Your task to perform on an android device: What's the weather like in Beijing? Image 0: 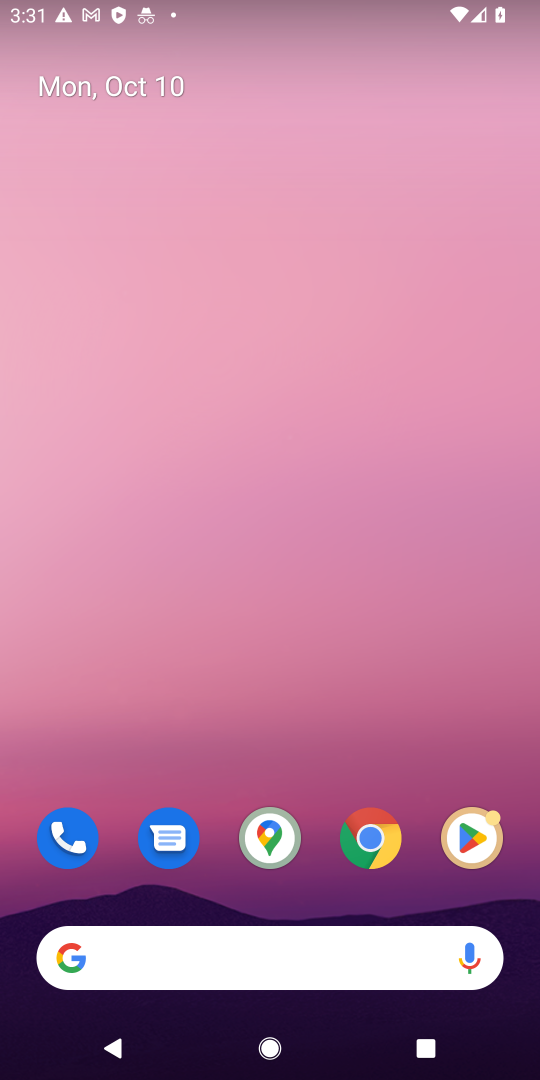
Step 0: click (364, 844)
Your task to perform on an android device: What's the weather like in Beijing? Image 1: 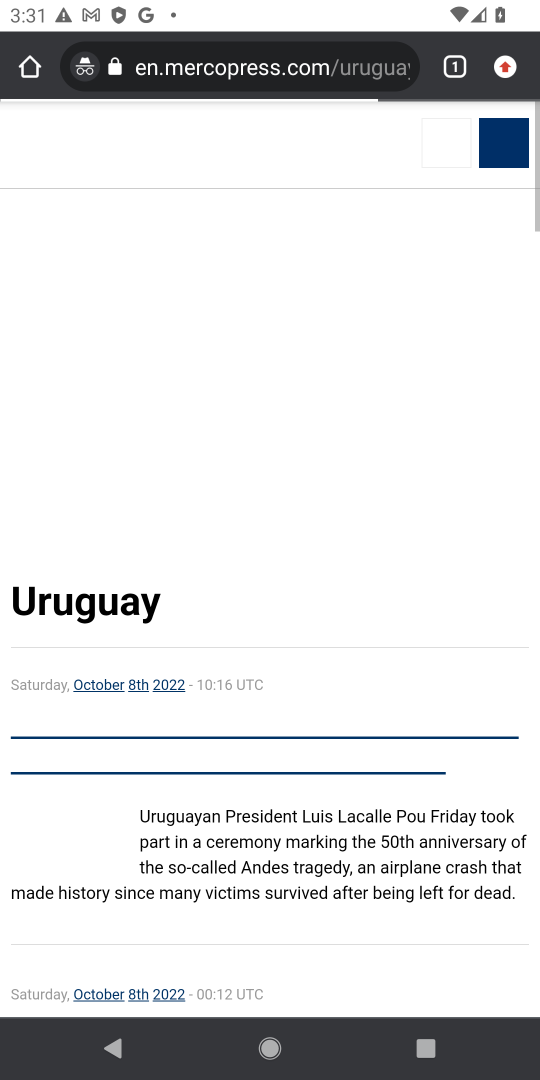
Step 1: click (228, 67)
Your task to perform on an android device: What's the weather like in Beijing? Image 2: 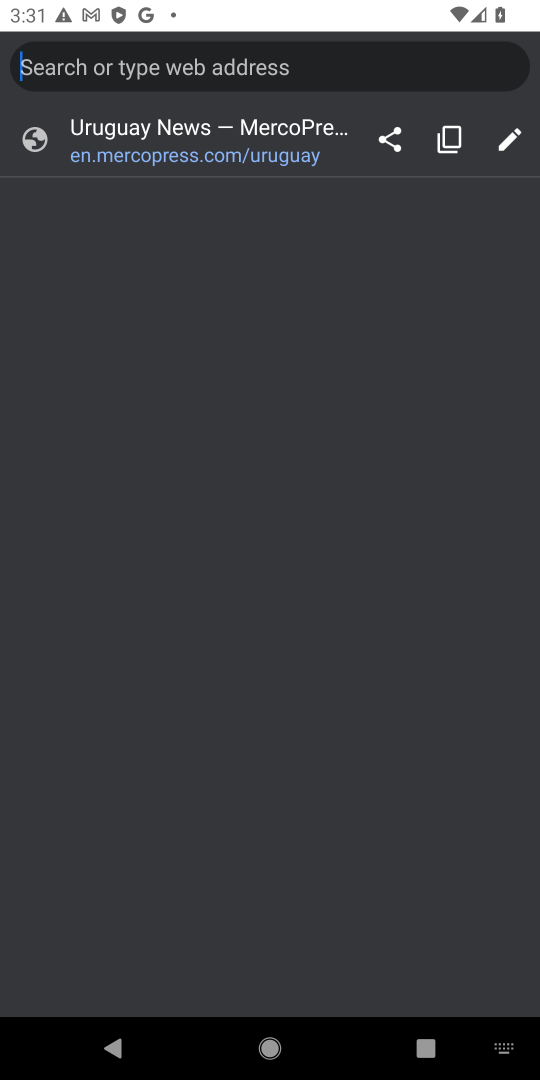
Step 2: type "What's the news in Uruguay?"
Your task to perform on an android device: What's the weather like in Beijing? Image 3: 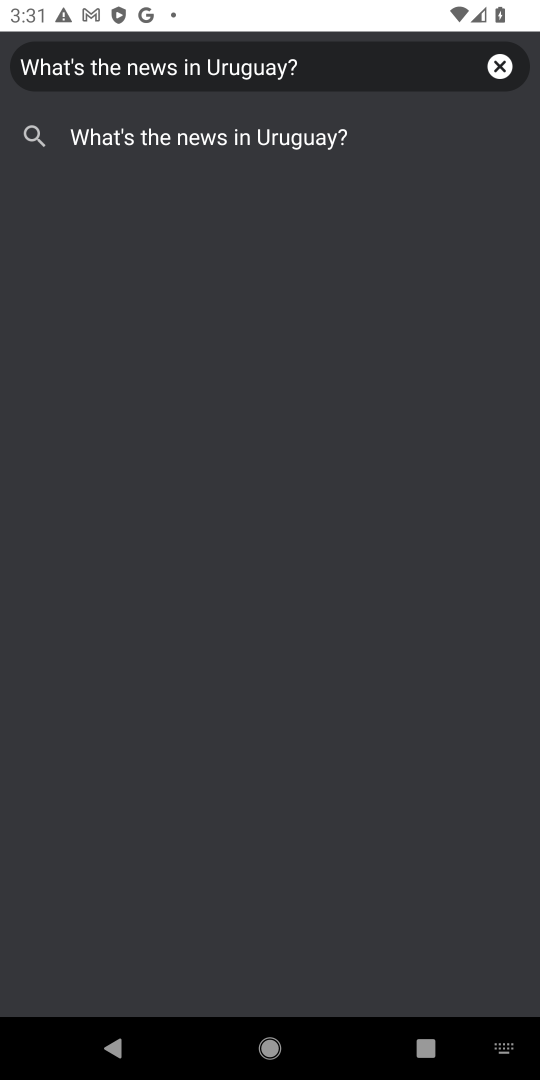
Step 3: click (309, 133)
Your task to perform on an android device: What's the weather like in Beijing? Image 4: 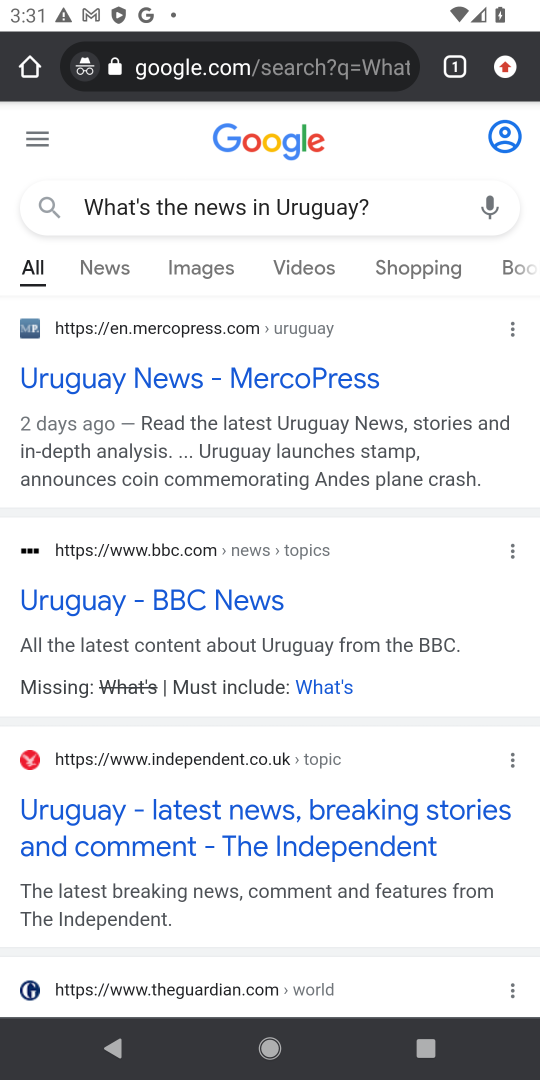
Step 4: click (90, 398)
Your task to perform on an android device: What's the weather like in Beijing? Image 5: 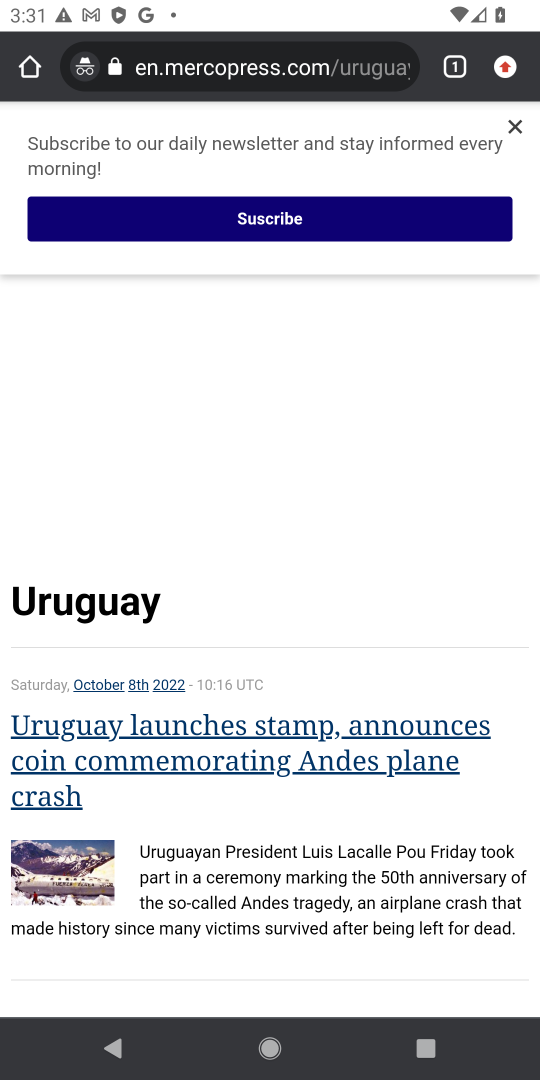
Step 5: task complete